Your task to perform on an android device: change the clock style Image 0: 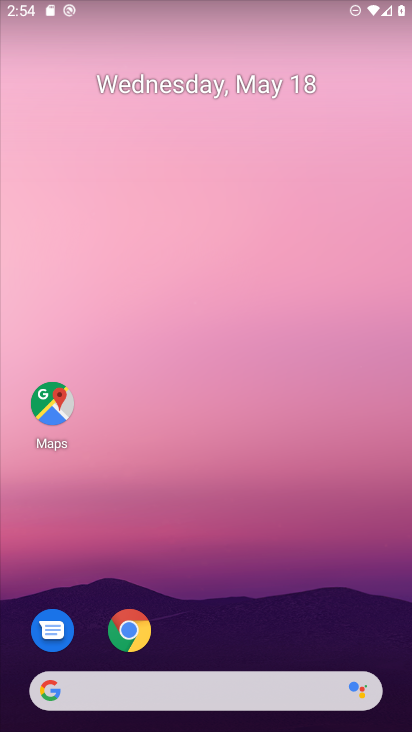
Step 0: press home button
Your task to perform on an android device: change the clock style Image 1: 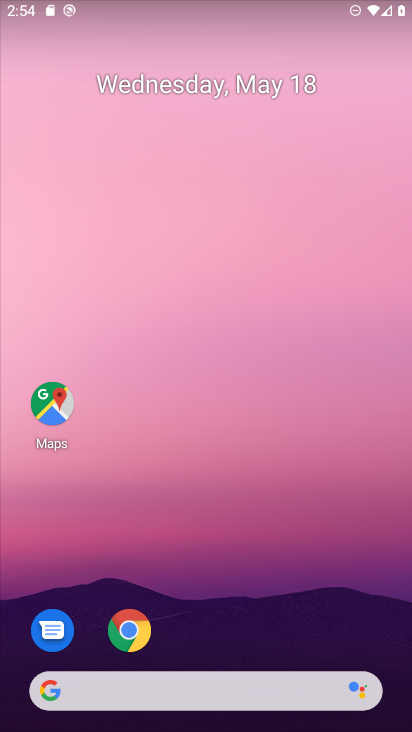
Step 1: drag from (227, 632) to (301, 197)
Your task to perform on an android device: change the clock style Image 2: 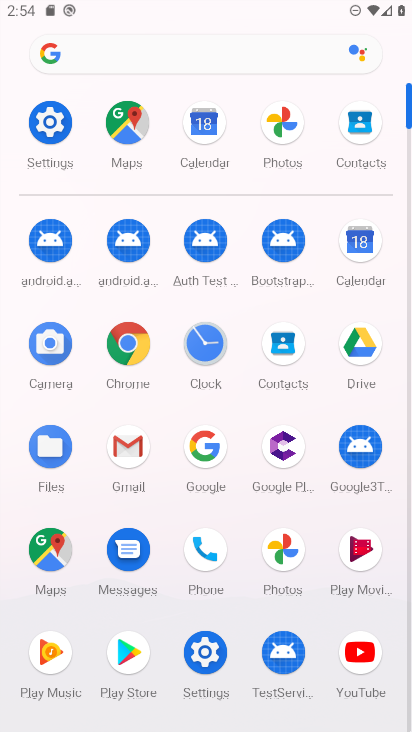
Step 2: click (201, 340)
Your task to perform on an android device: change the clock style Image 3: 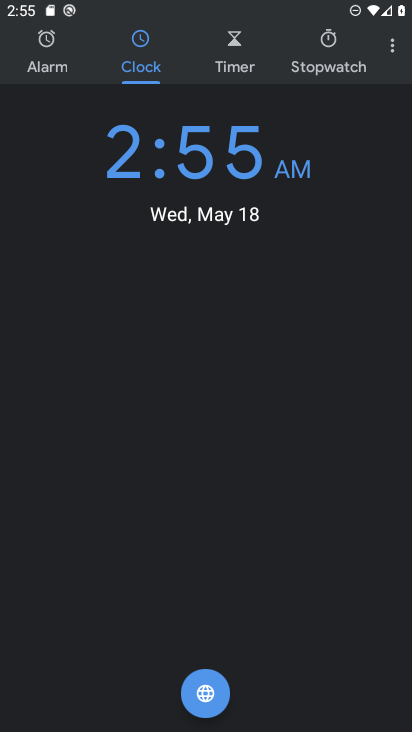
Step 3: click (389, 43)
Your task to perform on an android device: change the clock style Image 4: 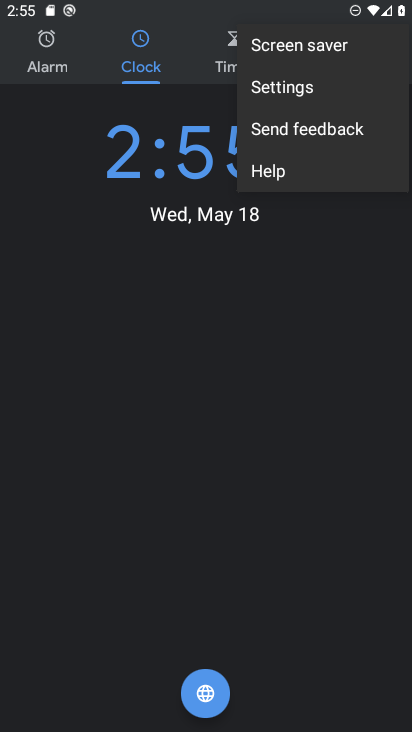
Step 4: click (315, 93)
Your task to perform on an android device: change the clock style Image 5: 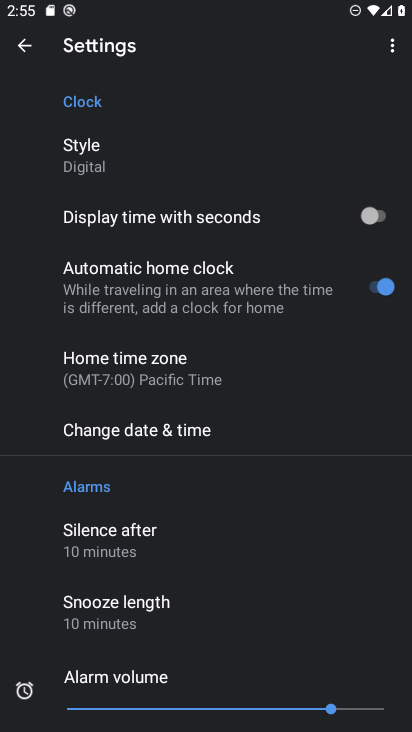
Step 5: click (137, 157)
Your task to perform on an android device: change the clock style Image 6: 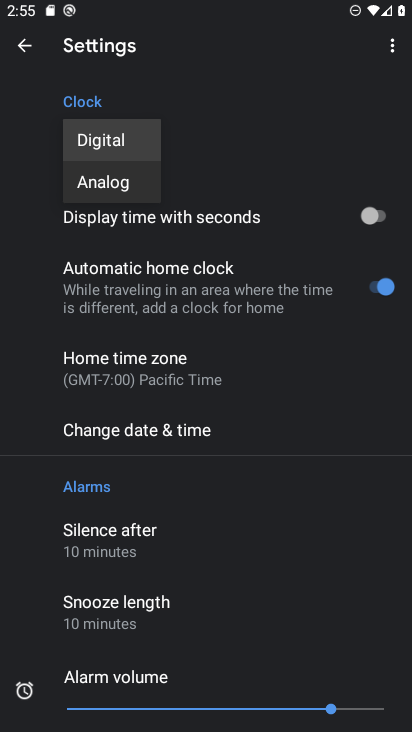
Step 6: click (118, 190)
Your task to perform on an android device: change the clock style Image 7: 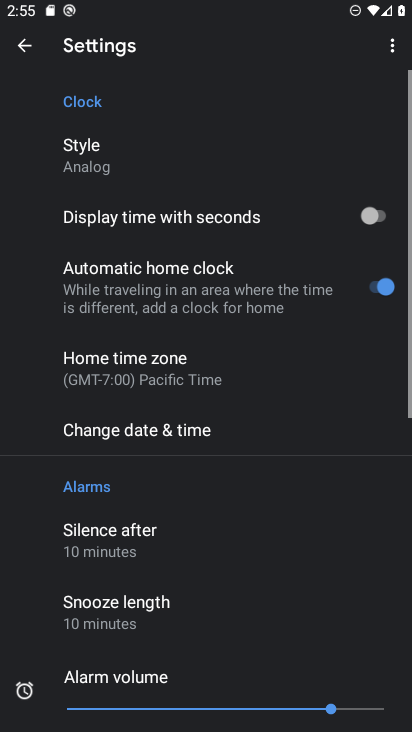
Step 7: task complete